Your task to perform on an android device: Open Google Maps Image 0: 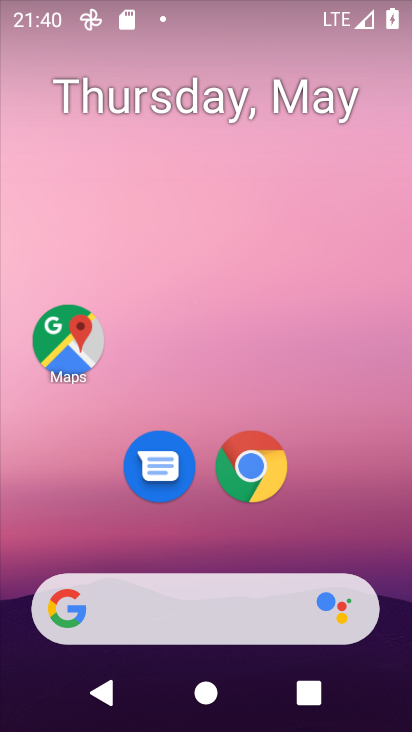
Step 0: click (63, 364)
Your task to perform on an android device: Open Google Maps Image 1: 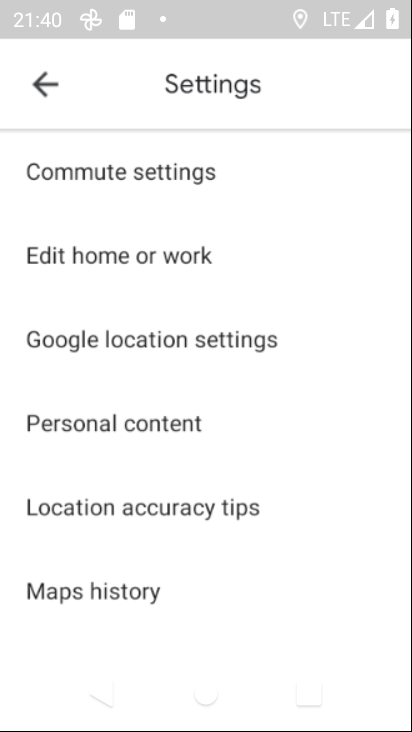
Step 1: task complete